Your task to perform on an android device: set the timer Image 0: 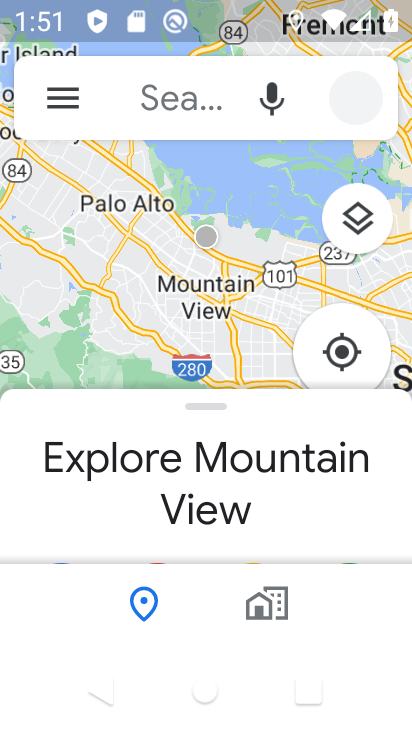
Step 0: press home button
Your task to perform on an android device: set the timer Image 1: 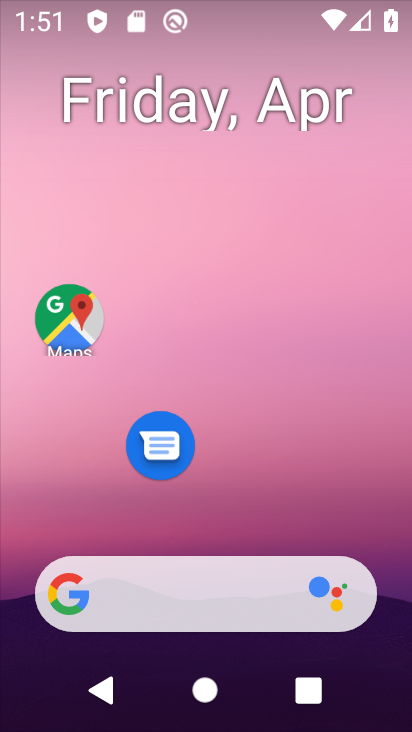
Step 1: drag from (270, 522) to (272, 150)
Your task to perform on an android device: set the timer Image 2: 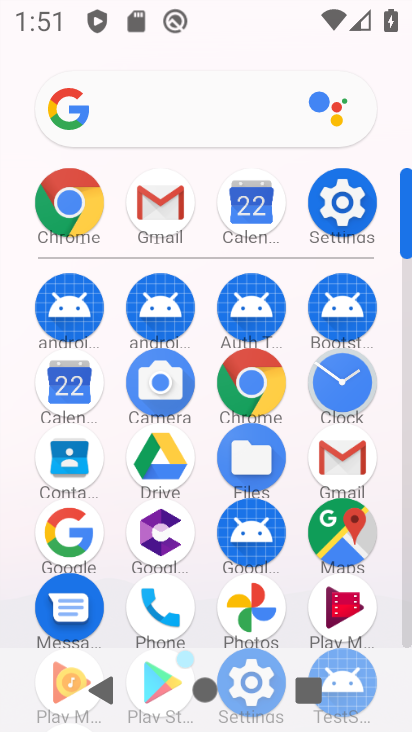
Step 2: click (341, 390)
Your task to perform on an android device: set the timer Image 3: 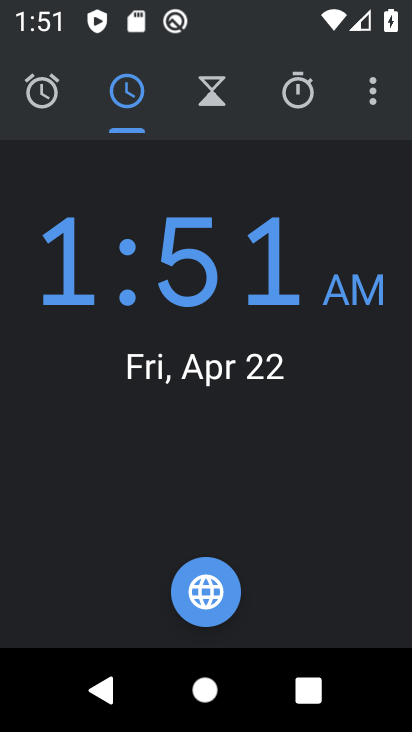
Step 3: click (196, 95)
Your task to perform on an android device: set the timer Image 4: 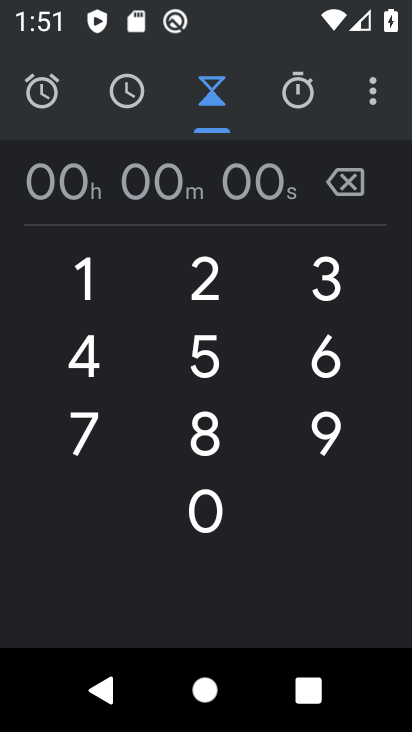
Step 4: click (182, 280)
Your task to perform on an android device: set the timer Image 5: 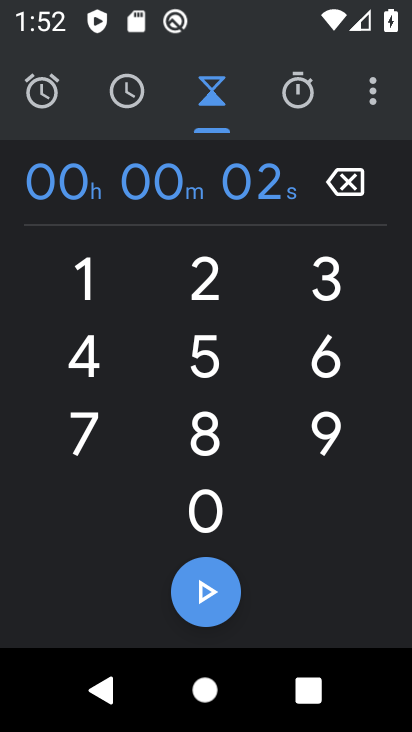
Step 5: click (59, 354)
Your task to perform on an android device: set the timer Image 6: 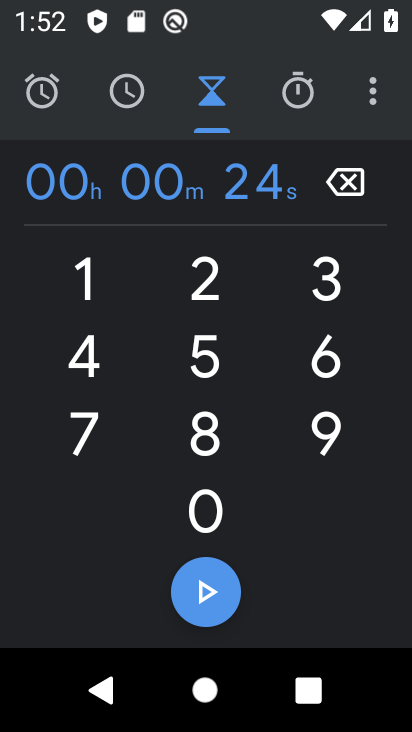
Step 6: click (185, 432)
Your task to perform on an android device: set the timer Image 7: 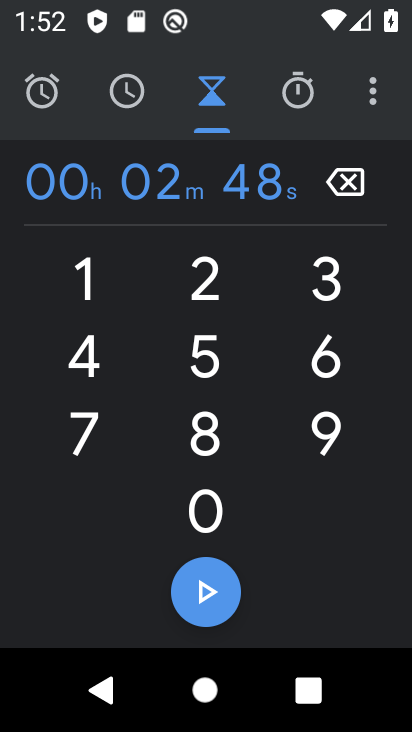
Step 7: click (300, 354)
Your task to perform on an android device: set the timer Image 8: 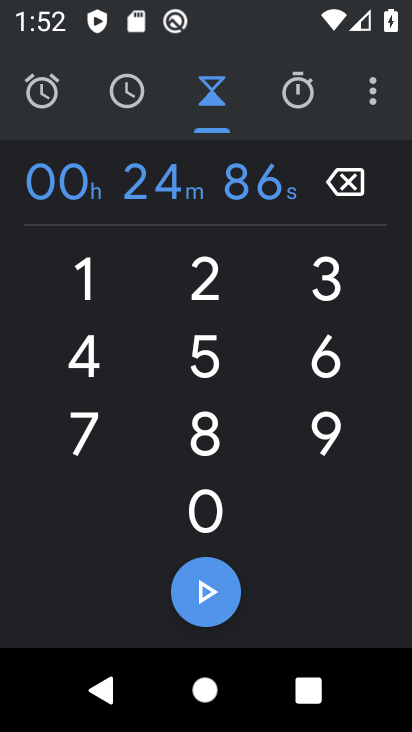
Step 8: click (91, 283)
Your task to perform on an android device: set the timer Image 9: 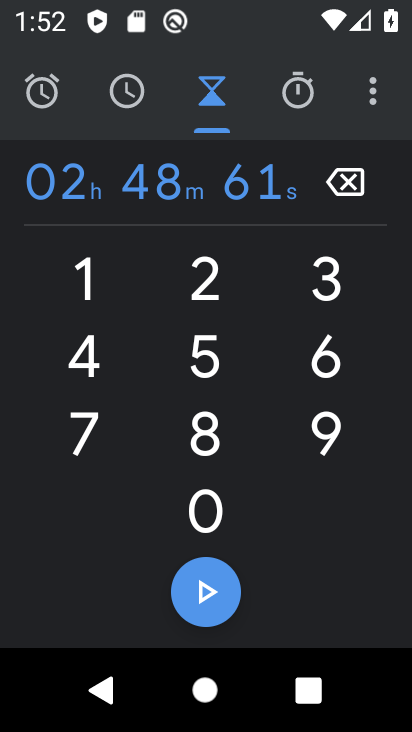
Step 9: click (298, 427)
Your task to perform on an android device: set the timer Image 10: 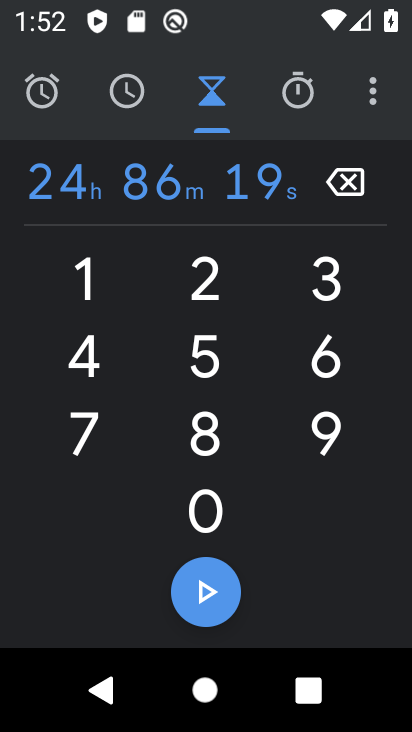
Step 10: click (203, 575)
Your task to perform on an android device: set the timer Image 11: 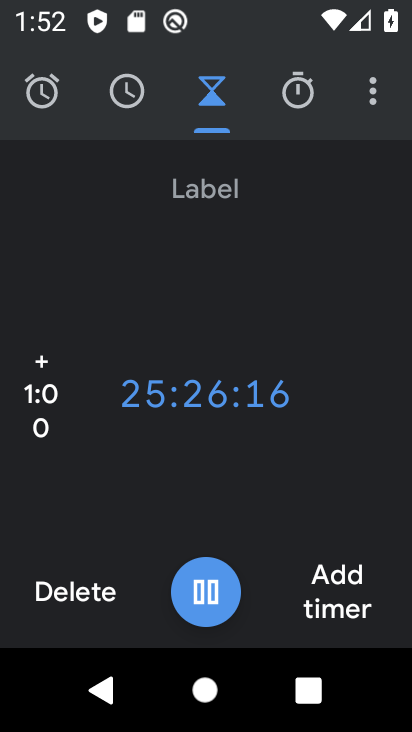
Step 11: task complete